Your task to perform on an android device: create a new album in the google photos Image 0: 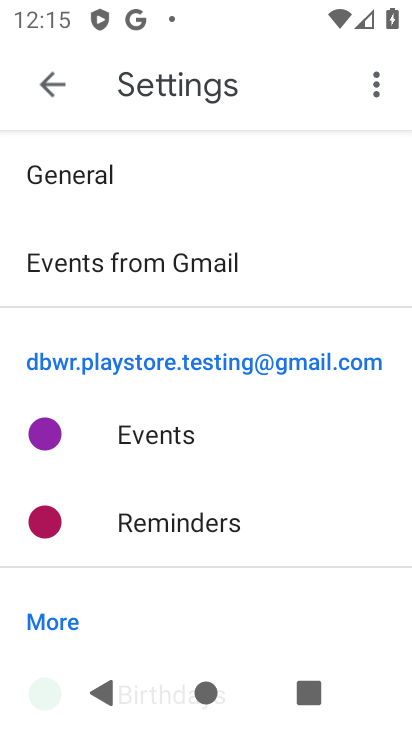
Step 0: press back button
Your task to perform on an android device: create a new album in the google photos Image 1: 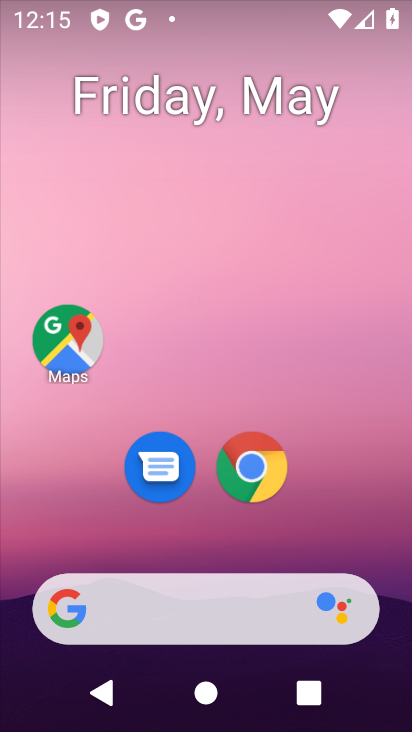
Step 1: drag from (313, 543) to (309, 101)
Your task to perform on an android device: create a new album in the google photos Image 2: 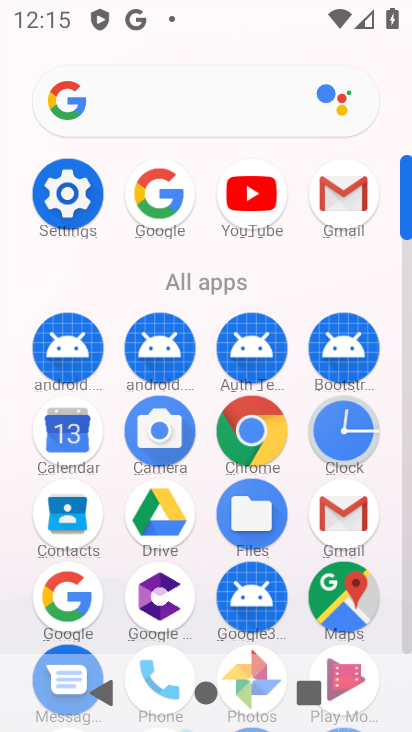
Step 2: drag from (290, 396) to (288, 151)
Your task to perform on an android device: create a new album in the google photos Image 3: 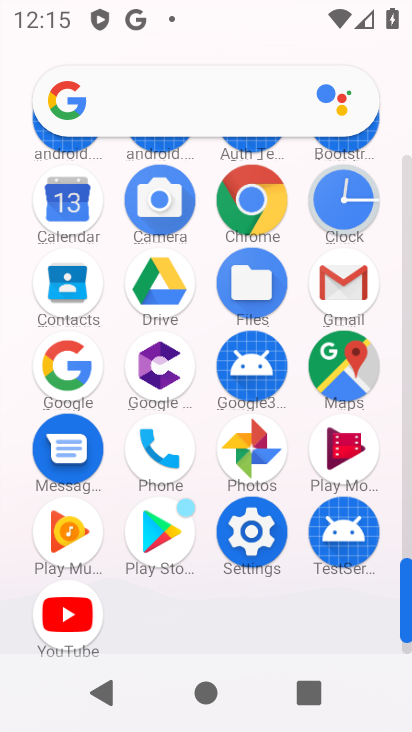
Step 3: click (250, 447)
Your task to perform on an android device: create a new album in the google photos Image 4: 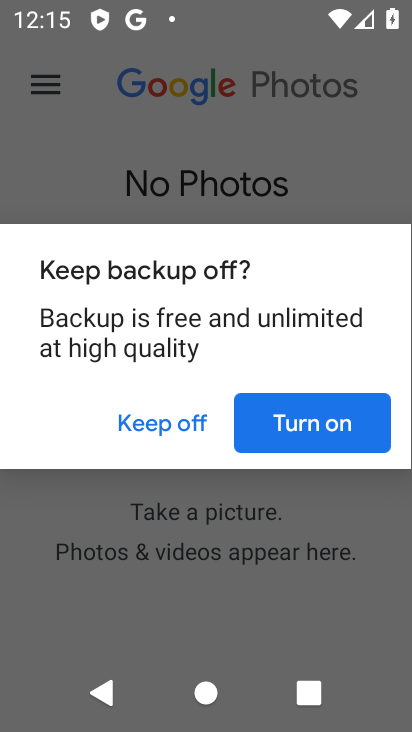
Step 4: click (169, 418)
Your task to perform on an android device: create a new album in the google photos Image 5: 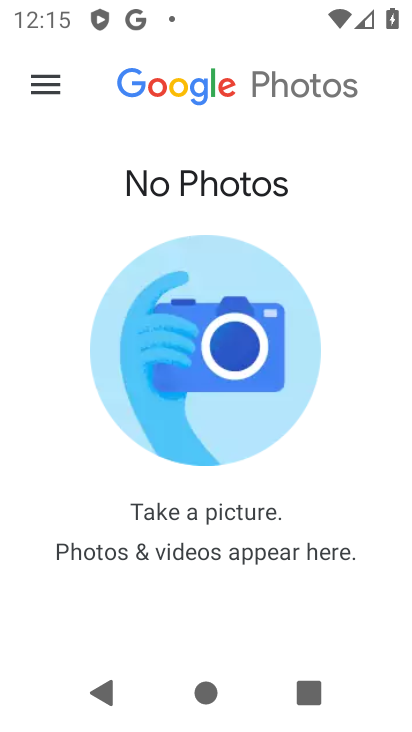
Step 5: click (49, 81)
Your task to perform on an android device: create a new album in the google photos Image 6: 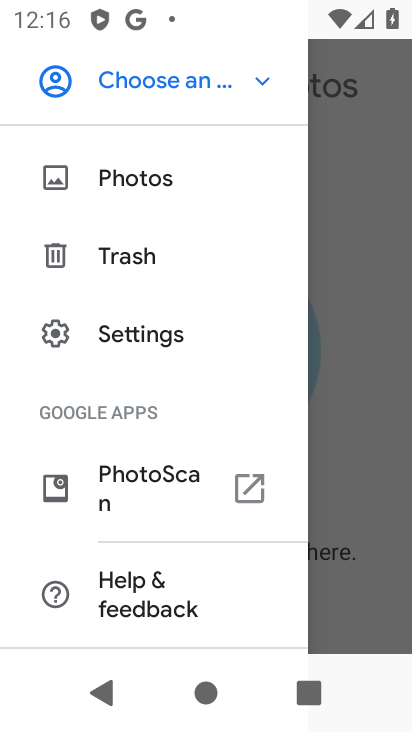
Step 6: click (321, 322)
Your task to perform on an android device: create a new album in the google photos Image 7: 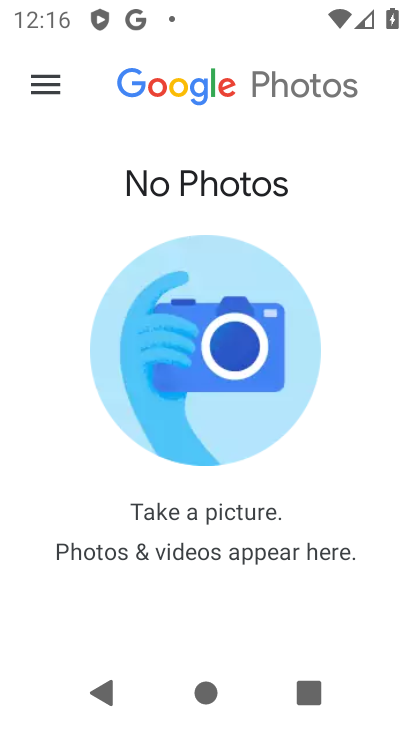
Step 7: press back button
Your task to perform on an android device: create a new album in the google photos Image 8: 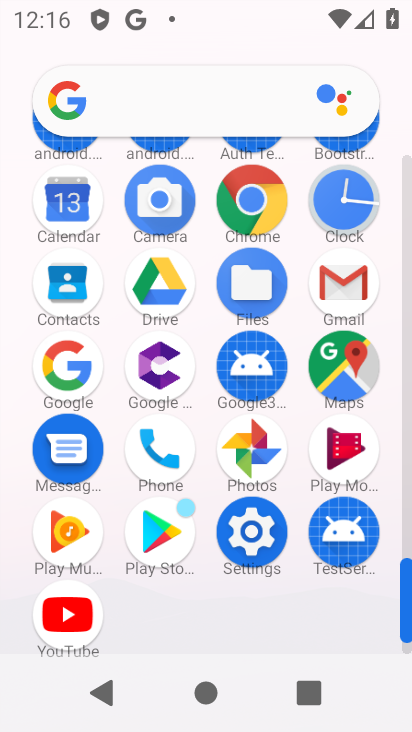
Step 8: click (256, 445)
Your task to perform on an android device: create a new album in the google photos Image 9: 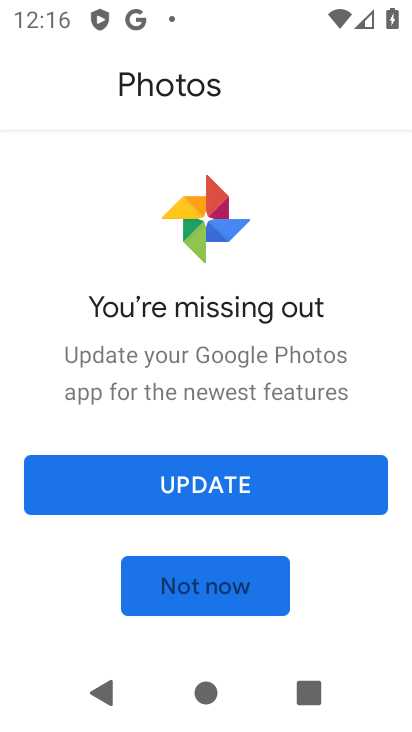
Step 9: click (223, 488)
Your task to perform on an android device: create a new album in the google photos Image 10: 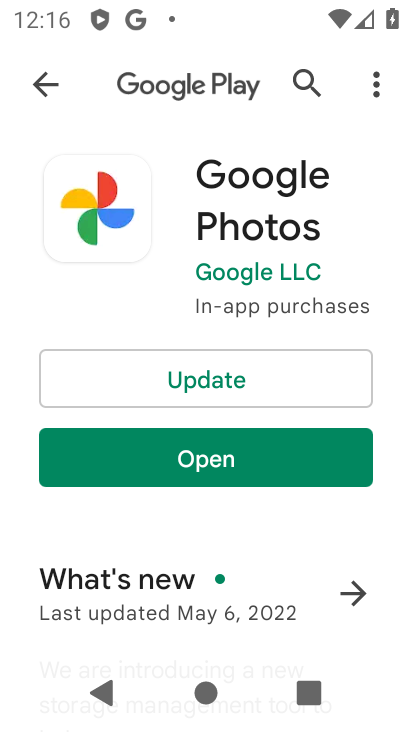
Step 10: click (199, 378)
Your task to perform on an android device: create a new album in the google photos Image 11: 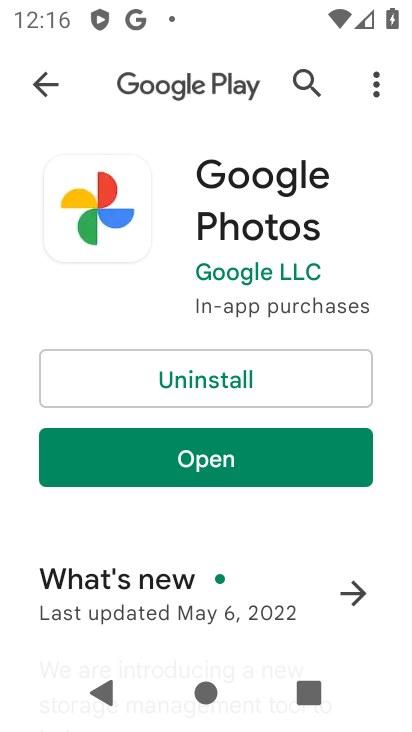
Step 11: click (164, 461)
Your task to perform on an android device: create a new album in the google photos Image 12: 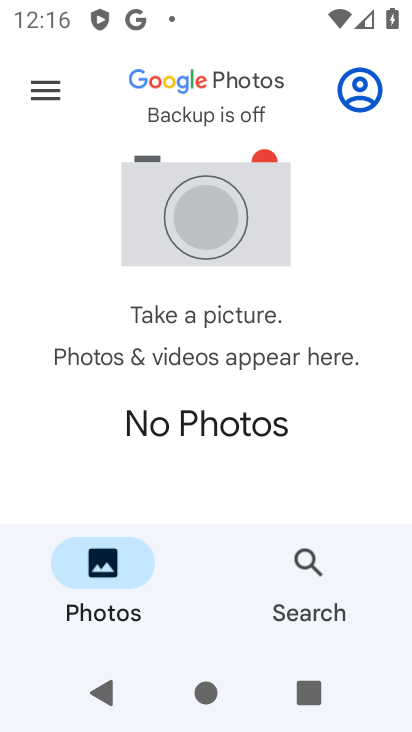
Step 12: click (363, 80)
Your task to perform on an android device: create a new album in the google photos Image 13: 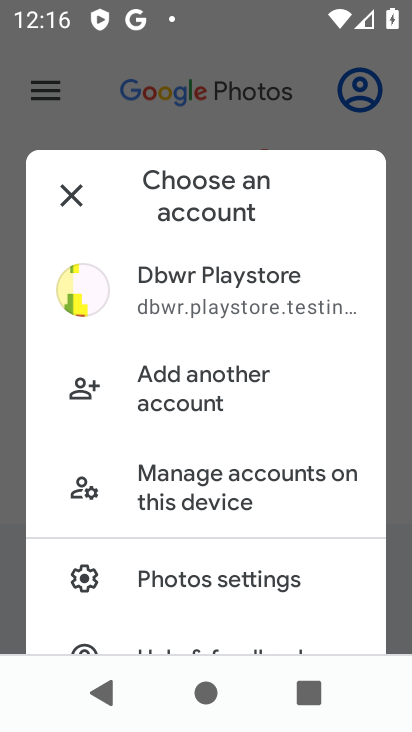
Step 13: drag from (247, 558) to (236, 374)
Your task to perform on an android device: create a new album in the google photos Image 14: 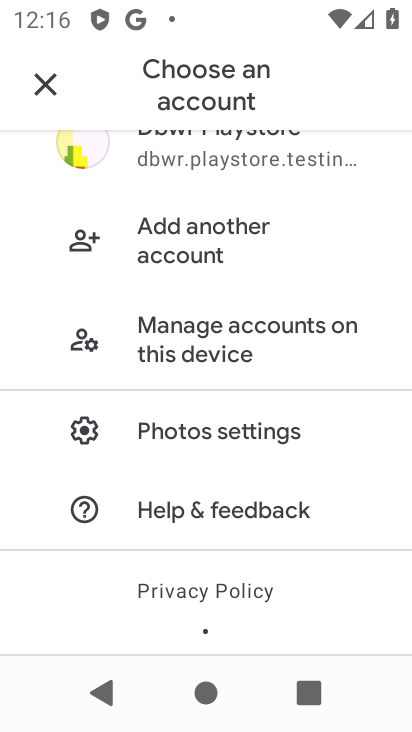
Step 14: click (263, 440)
Your task to perform on an android device: create a new album in the google photos Image 15: 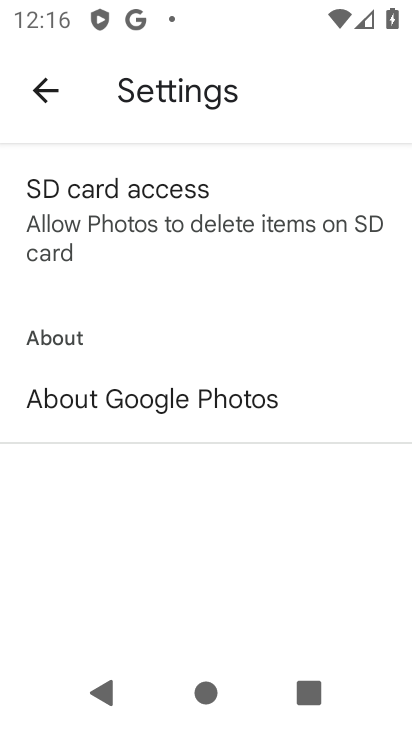
Step 15: press back button
Your task to perform on an android device: create a new album in the google photos Image 16: 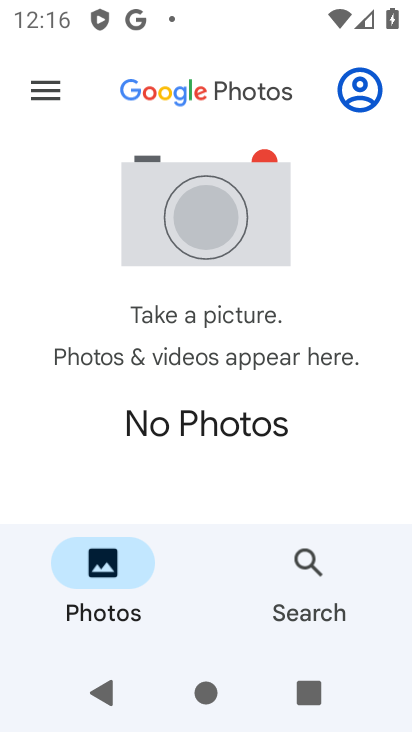
Step 16: click (311, 570)
Your task to perform on an android device: create a new album in the google photos Image 17: 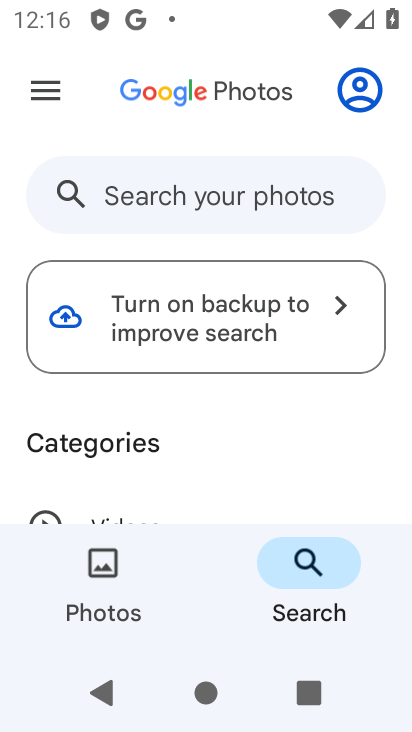
Step 17: drag from (234, 475) to (304, 337)
Your task to perform on an android device: create a new album in the google photos Image 18: 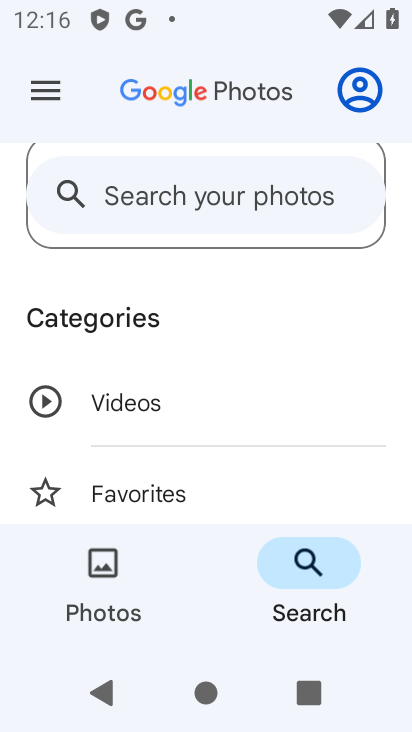
Step 18: drag from (274, 438) to (320, 290)
Your task to perform on an android device: create a new album in the google photos Image 19: 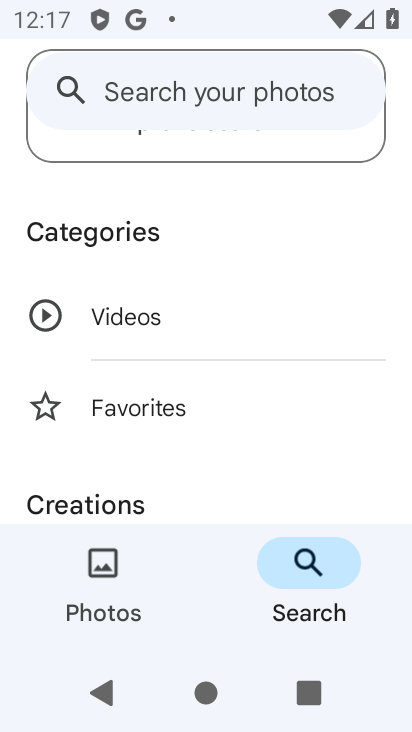
Step 19: drag from (236, 422) to (280, 235)
Your task to perform on an android device: create a new album in the google photos Image 20: 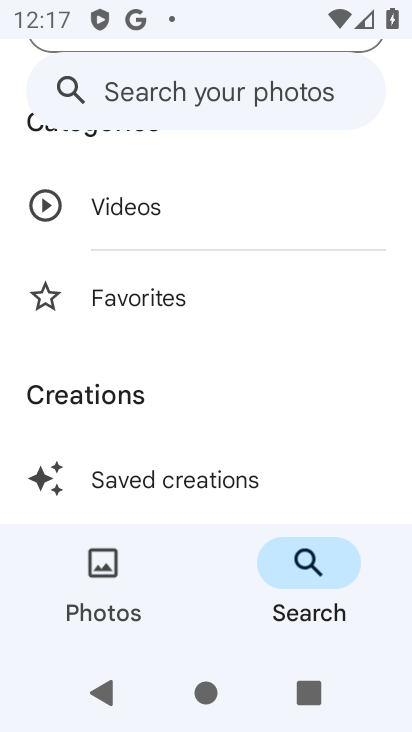
Step 20: drag from (193, 473) to (240, 261)
Your task to perform on an android device: create a new album in the google photos Image 21: 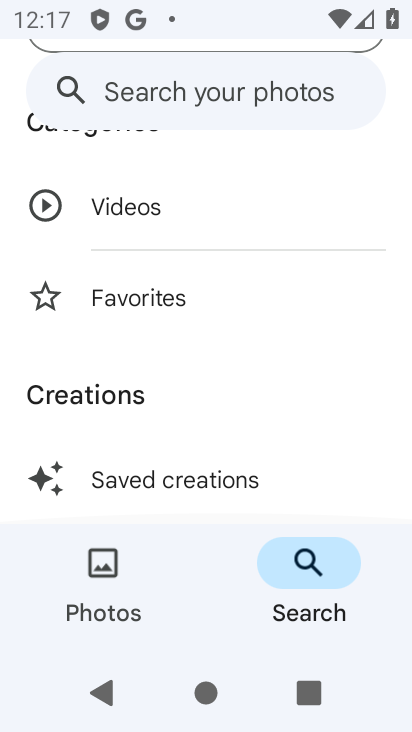
Step 21: drag from (232, 215) to (266, 426)
Your task to perform on an android device: create a new album in the google photos Image 22: 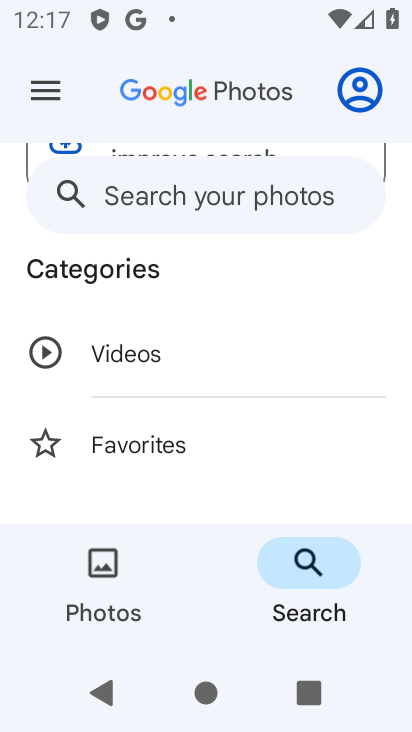
Step 22: drag from (209, 264) to (258, 463)
Your task to perform on an android device: create a new album in the google photos Image 23: 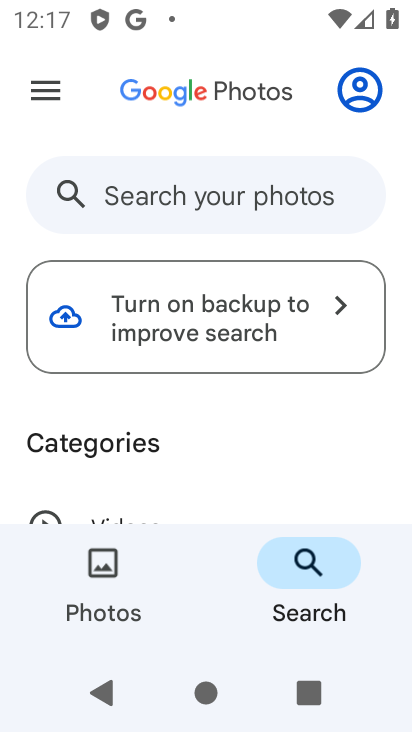
Step 23: click (33, 83)
Your task to perform on an android device: create a new album in the google photos Image 24: 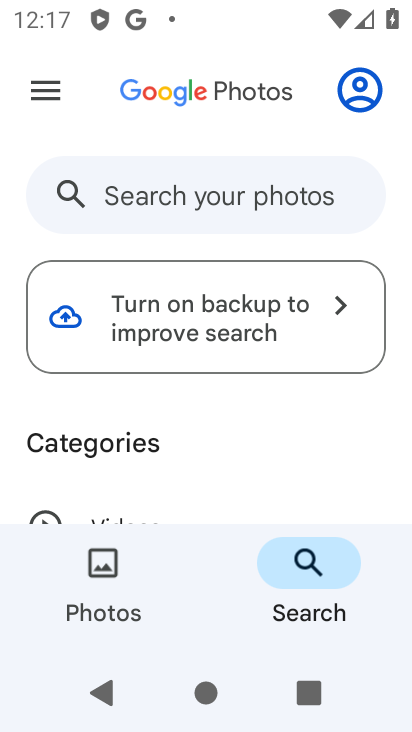
Step 24: click (108, 545)
Your task to perform on an android device: create a new album in the google photos Image 25: 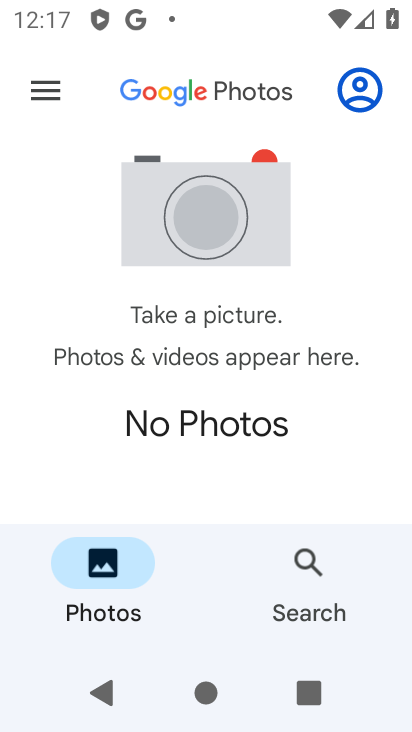
Step 25: click (355, 83)
Your task to perform on an android device: create a new album in the google photos Image 26: 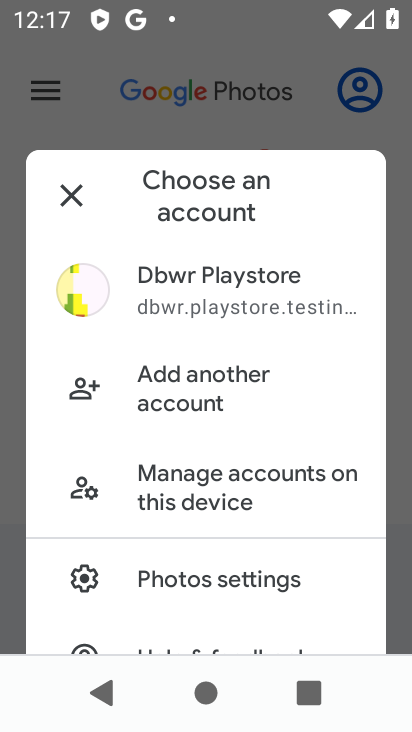
Step 26: drag from (181, 438) to (241, 310)
Your task to perform on an android device: create a new album in the google photos Image 27: 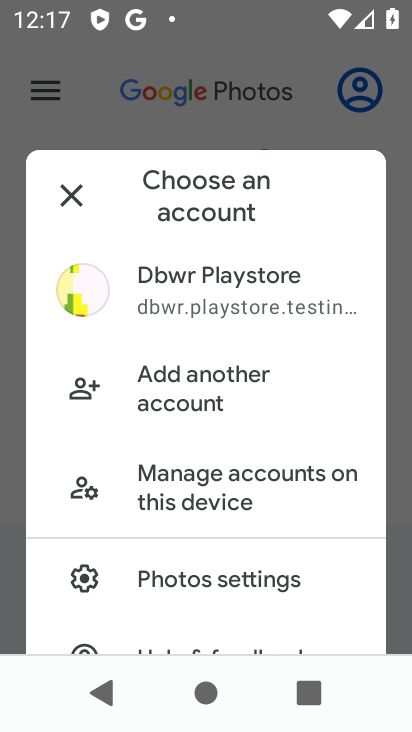
Step 27: drag from (208, 523) to (222, 343)
Your task to perform on an android device: create a new album in the google photos Image 28: 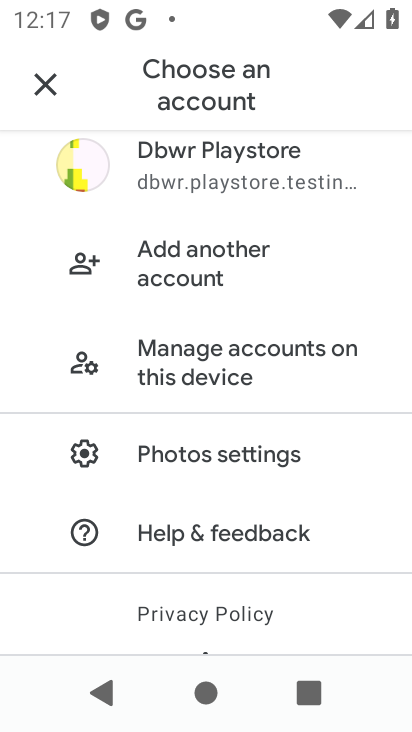
Step 28: drag from (236, 484) to (271, 295)
Your task to perform on an android device: create a new album in the google photos Image 29: 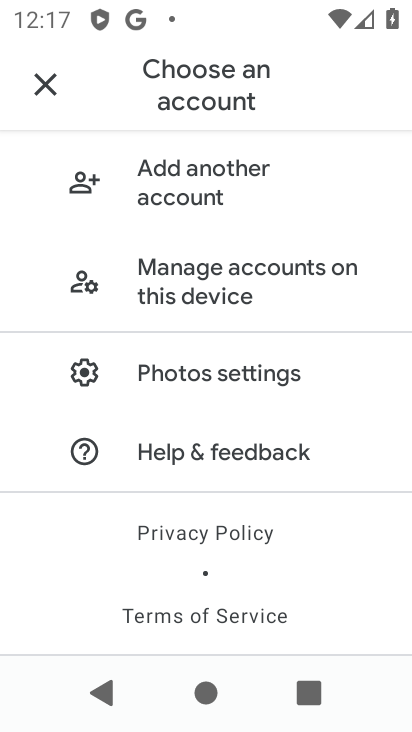
Step 29: click (41, 85)
Your task to perform on an android device: create a new album in the google photos Image 30: 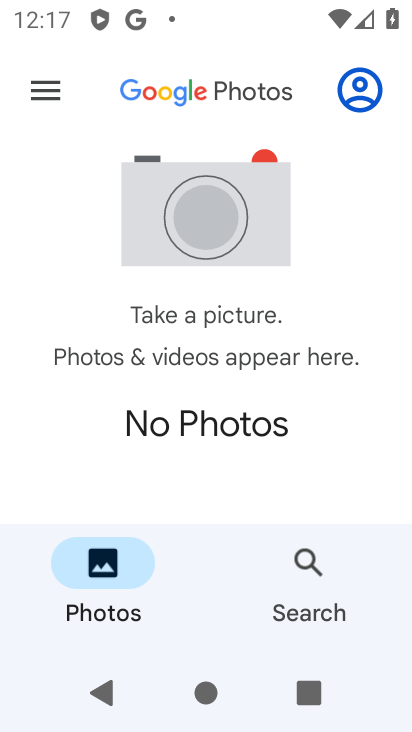
Step 30: click (261, 100)
Your task to perform on an android device: create a new album in the google photos Image 31: 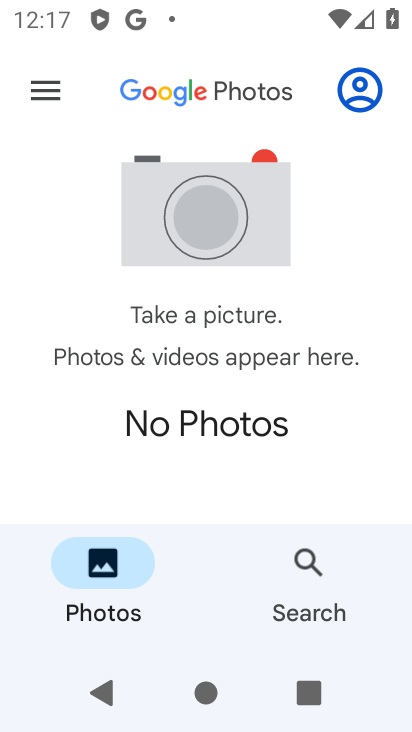
Step 31: click (302, 558)
Your task to perform on an android device: create a new album in the google photos Image 32: 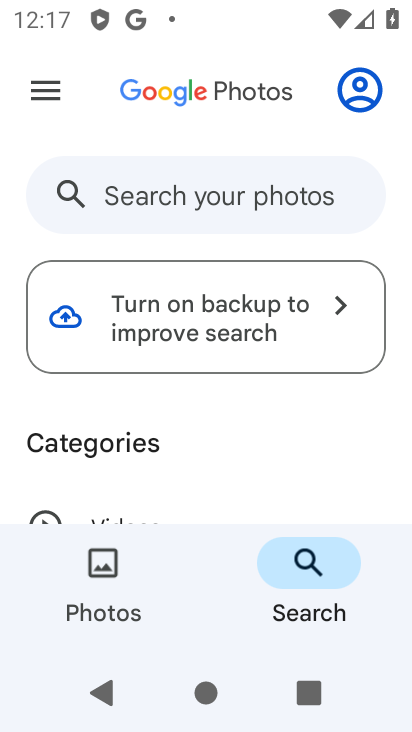
Step 32: click (328, 200)
Your task to perform on an android device: create a new album in the google photos Image 33: 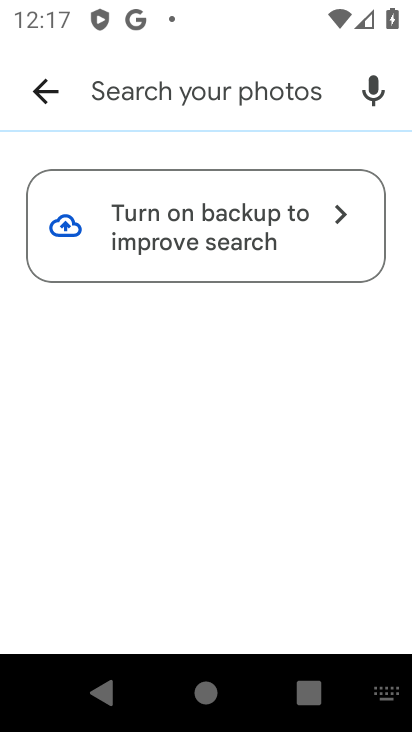
Step 33: task complete